Your task to perform on an android device: Open Yahoo.com Image 0: 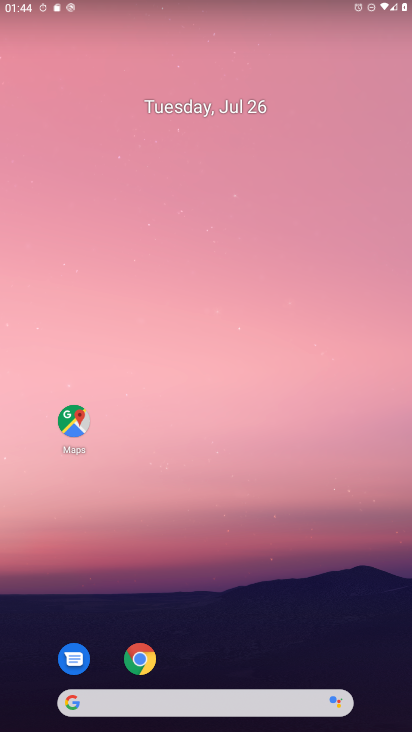
Step 0: click (151, 664)
Your task to perform on an android device: Open Yahoo.com Image 1: 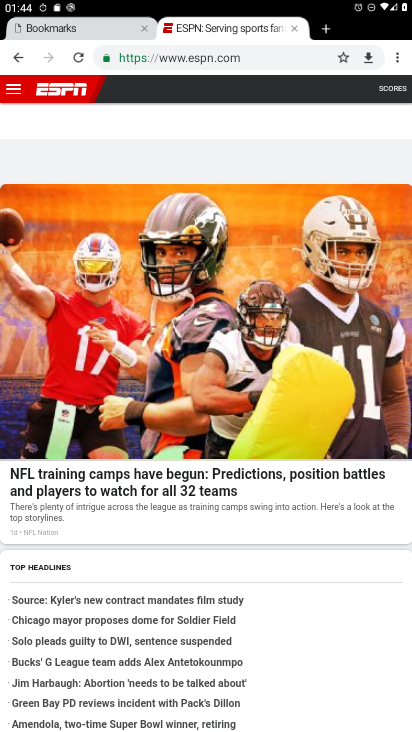
Step 1: click (202, 48)
Your task to perform on an android device: Open Yahoo.com Image 2: 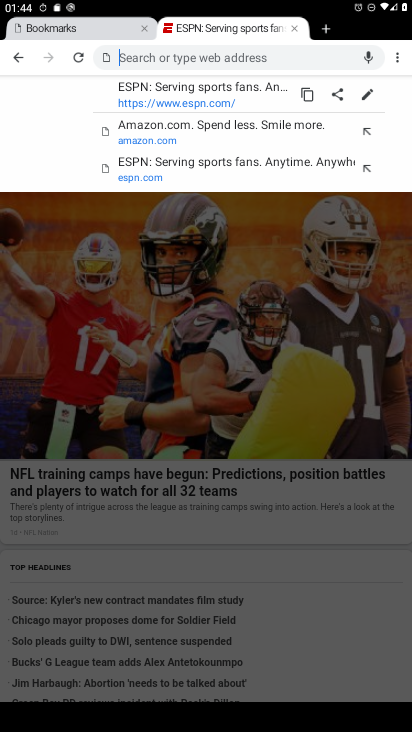
Step 2: type " Yahoo.com"
Your task to perform on an android device: Open Yahoo.com Image 3: 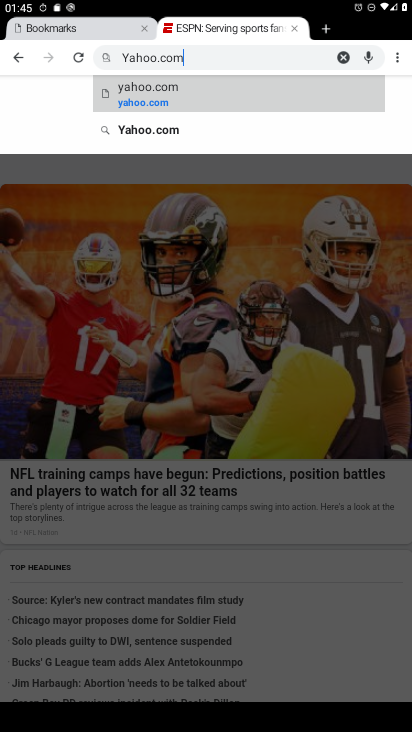
Step 3: type ""
Your task to perform on an android device: Open Yahoo.com Image 4: 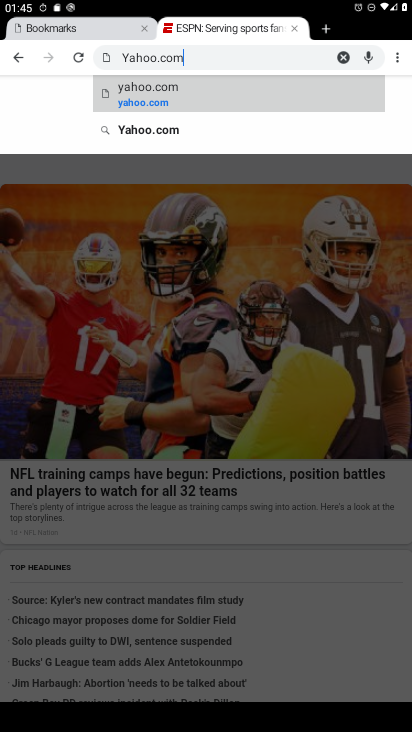
Step 4: click (193, 96)
Your task to perform on an android device: Open Yahoo.com Image 5: 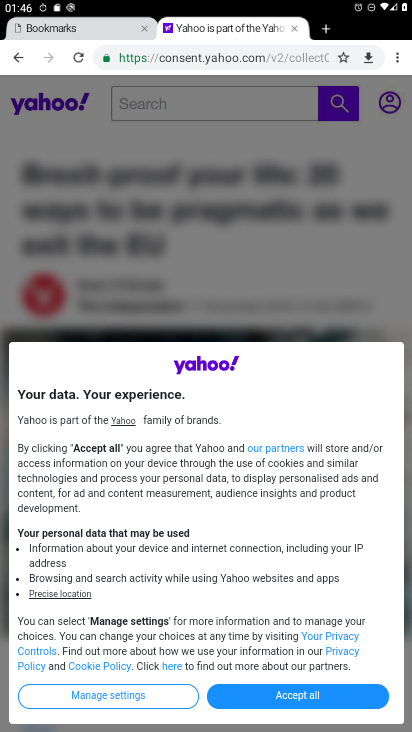
Step 5: task complete